Your task to perform on an android device: Open location settings Image 0: 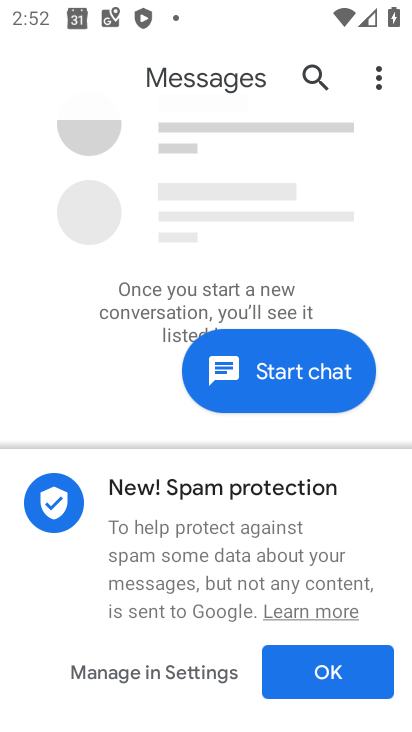
Step 0: press back button
Your task to perform on an android device: Open location settings Image 1: 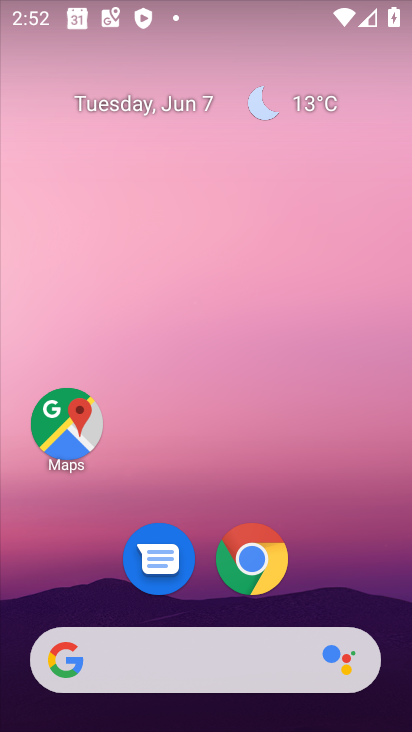
Step 1: drag from (314, 574) to (226, 78)
Your task to perform on an android device: Open location settings Image 2: 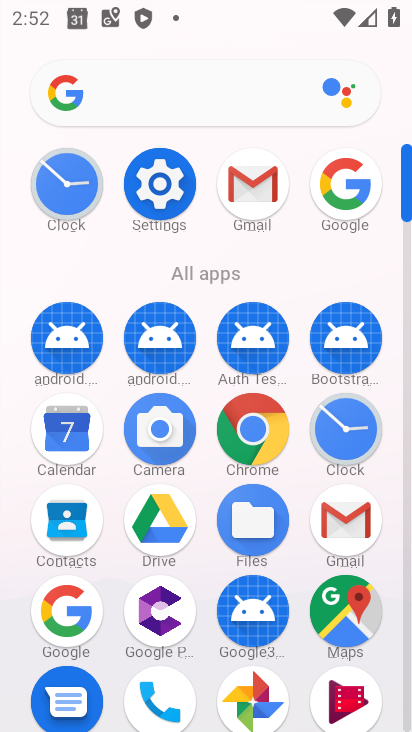
Step 2: click (156, 172)
Your task to perform on an android device: Open location settings Image 3: 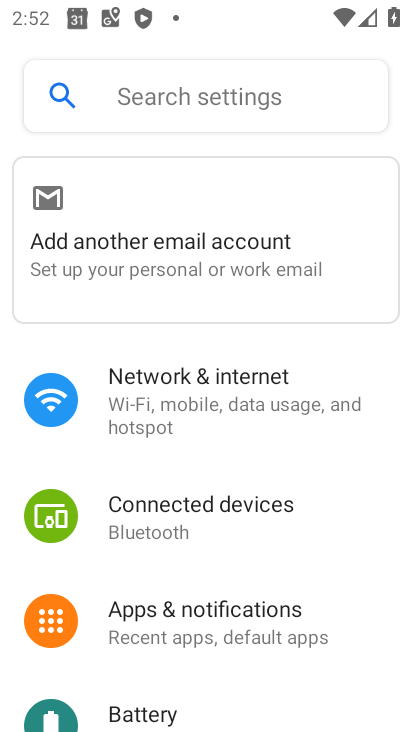
Step 3: drag from (182, 465) to (297, 313)
Your task to perform on an android device: Open location settings Image 4: 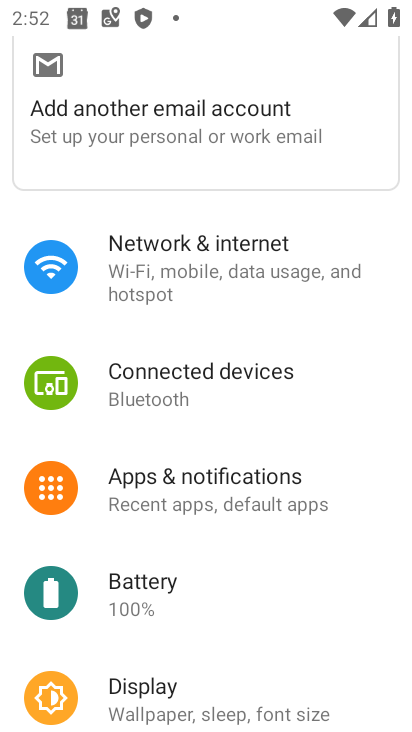
Step 4: drag from (208, 430) to (310, 262)
Your task to perform on an android device: Open location settings Image 5: 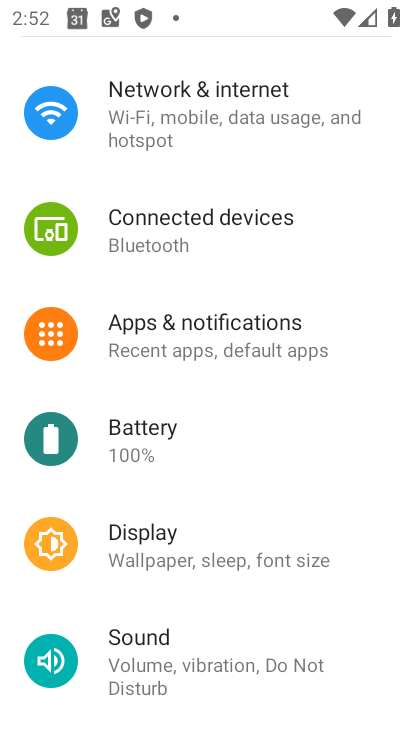
Step 5: drag from (194, 542) to (278, 258)
Your task to perform on an android device: Open location settings Image 6: 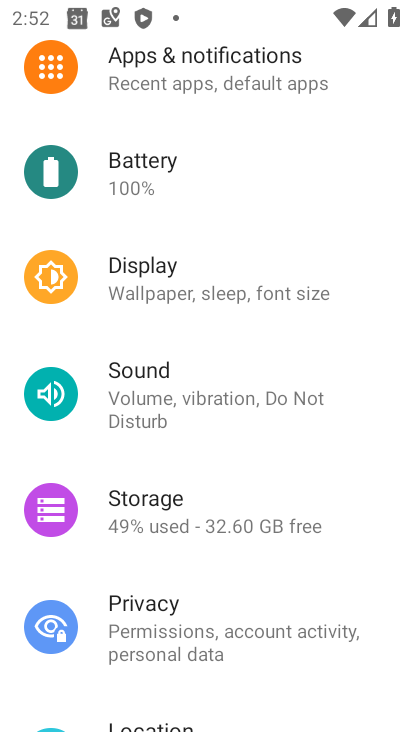
Step 6: drag from (236, 596) to (313, 351)
Your task to perform on an android device: Open location settings Image 7: 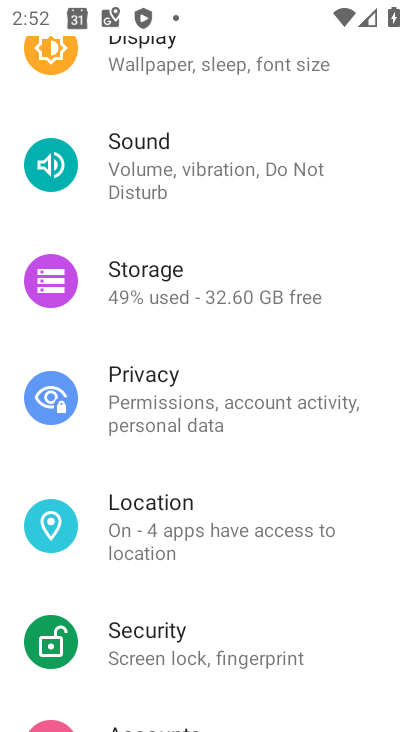
Step 7: click (180, 505)
Your task to perform on an android device: Open location settings Image 8: 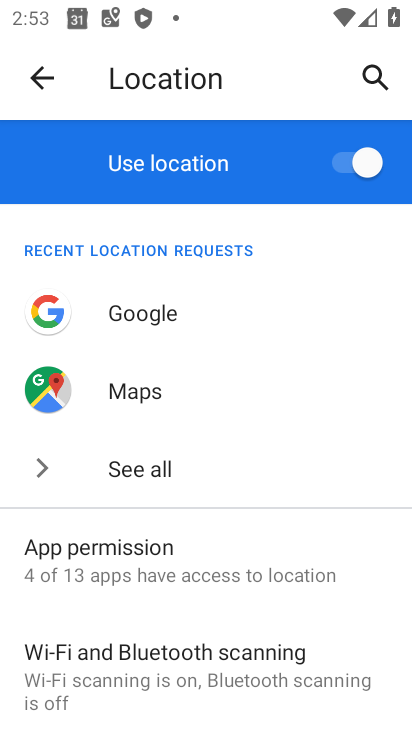
Step 8: task complete